Your task to perform on an android device: remove spam from my inbox in the gmail app Image 0: 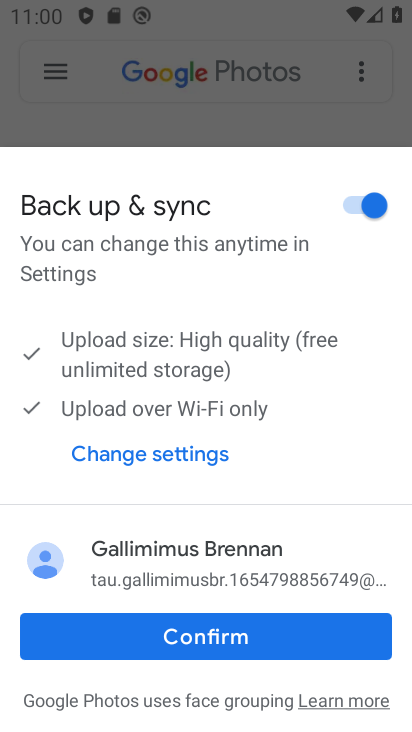
Step 0: press home button
Your task to perform on an android device: remove spam from my inbox in the gmail app Image 1: 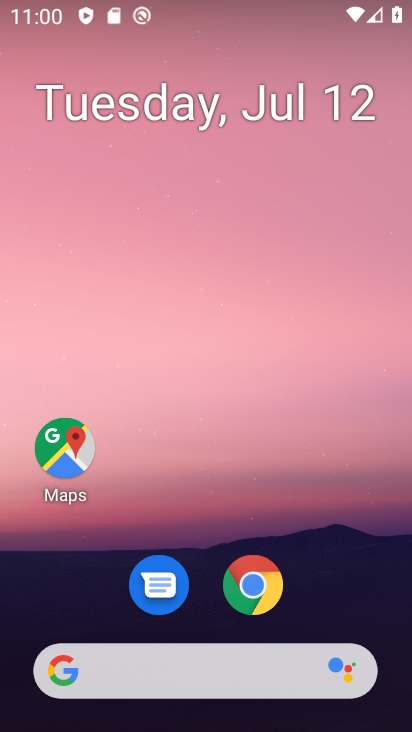
Step 1: drag from (353, 573) to (298, 50)
Your task to perform on an android device: remove spam from my inbox in the gmail app Image 2: 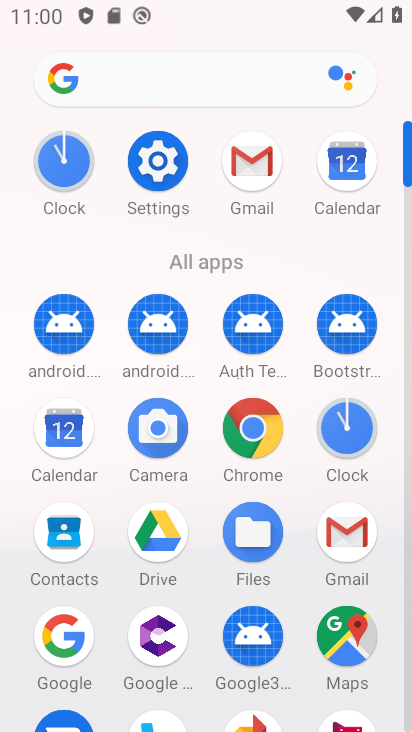
Step 2: click (258, 148)
Your task to perform on an android device: remove spam from my inbox in the gmail app Image 3: 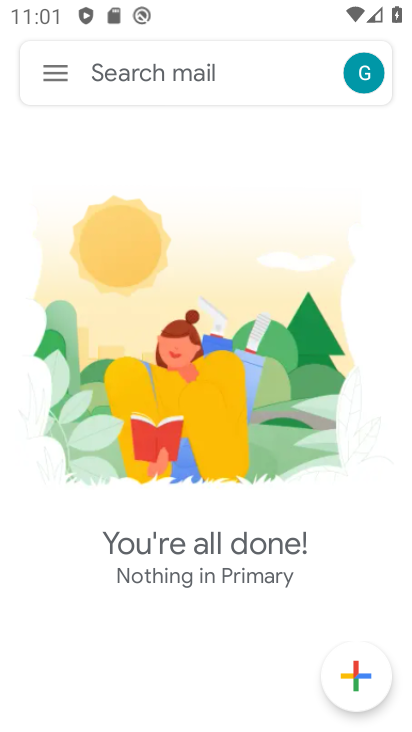
Step 3: click (60, 73)
Your task to perform on an android device: remove spam from my inbox in the gmail app Image 4: 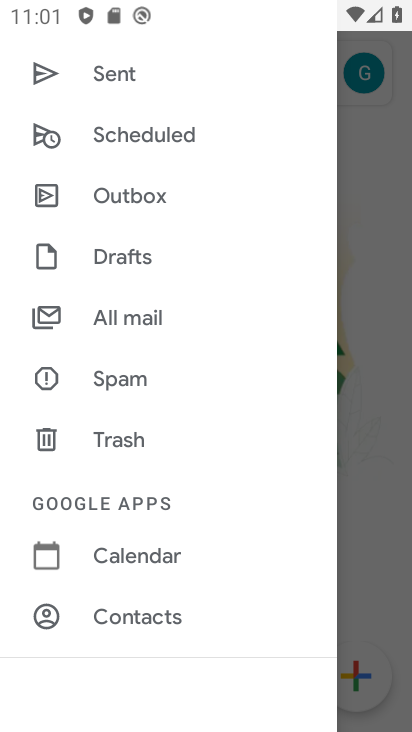
Step 4: click (133, 375)
Your task to perform on an android device: remove spam from my inbox in the gmail app Image 5: 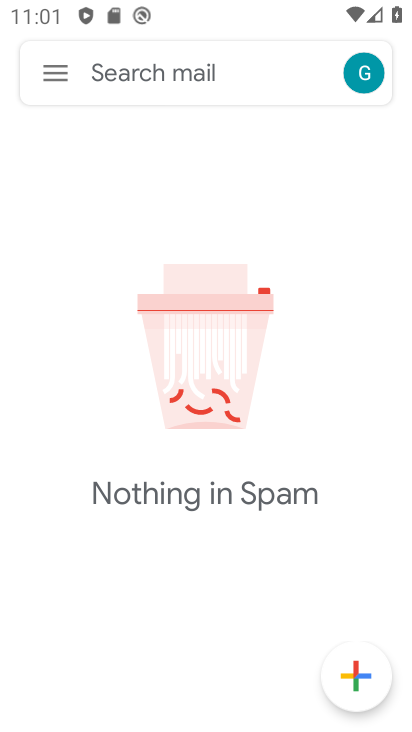
Step 5: task complete